Your task to perform on an android device: turn on javascript in the chrome app Image 0: 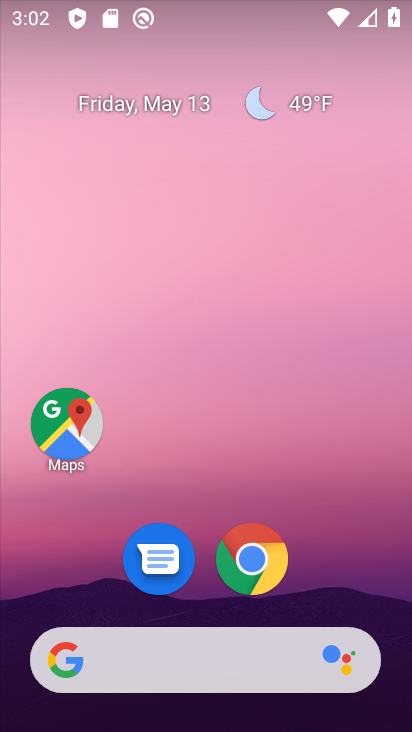
Step 0: click (256, 563)
Your task to perform on an android device: turn on javascript in the chrome app Image 1: 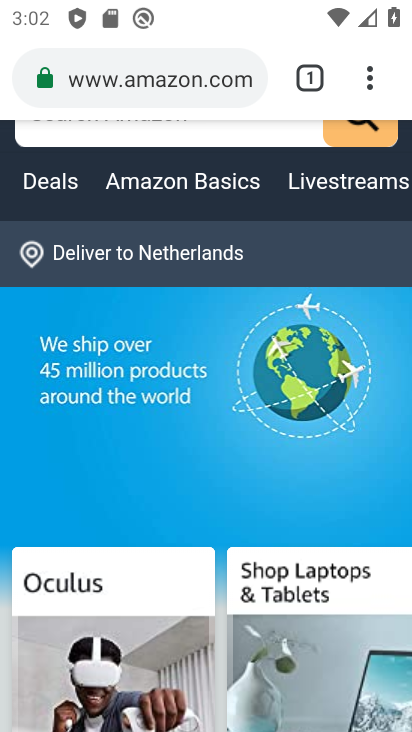
Step 1: click (369, 84)
Your task to perform on an android device: turn on javascript in the chrome app Image 2: 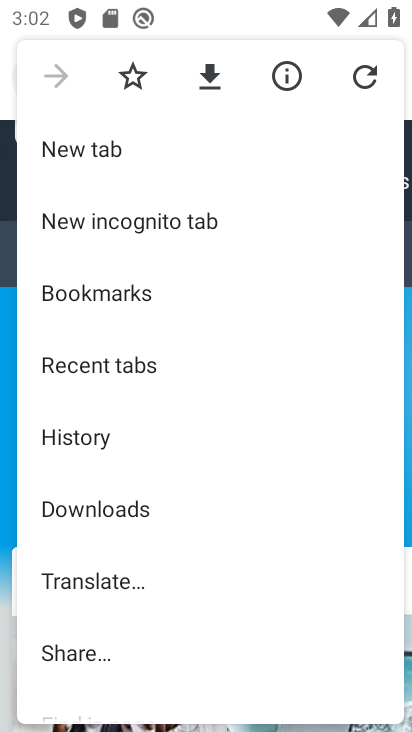
Step 2: drag from (211, 595) to (230, 210)
Your task to perform on an android device: turn on javascript in the chrome app Image 3: 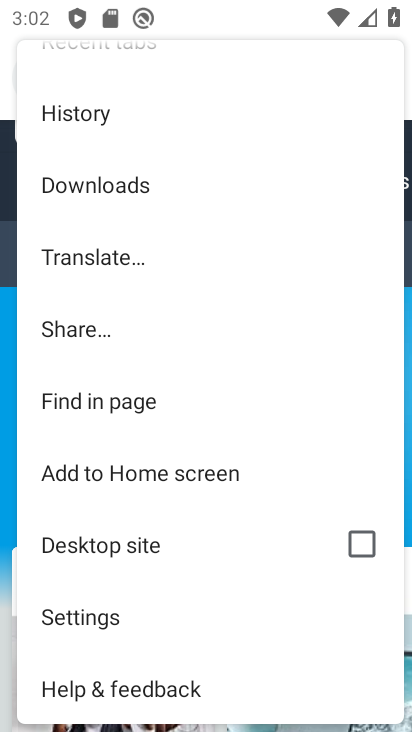
Step 3: drag from (283, 575) to (292, 211)
Your task to perform on an android device: turn on javascript in the chrome app Image 4: 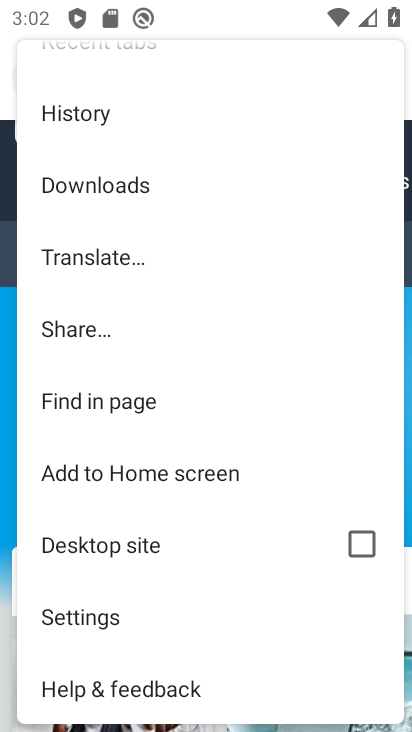
Step 4: click (76, 618)
Your task to perform on an android device: turn on javascript in the chrome app Image 5: 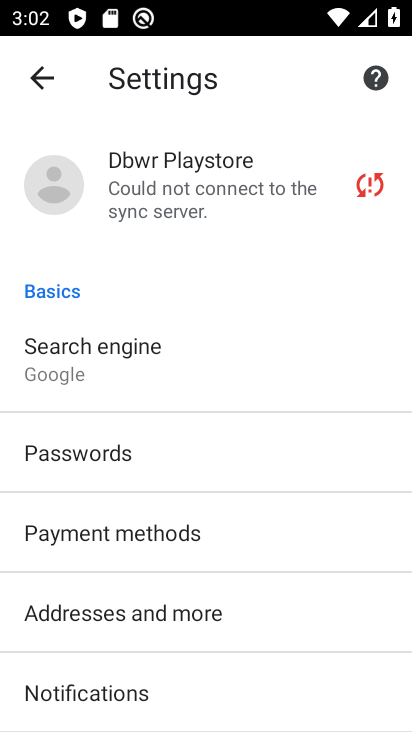
Step 5: drag from (242, 638) to (258, 252)
Your task to perform on an android device: turn on javascript in the chrome app Image 6: 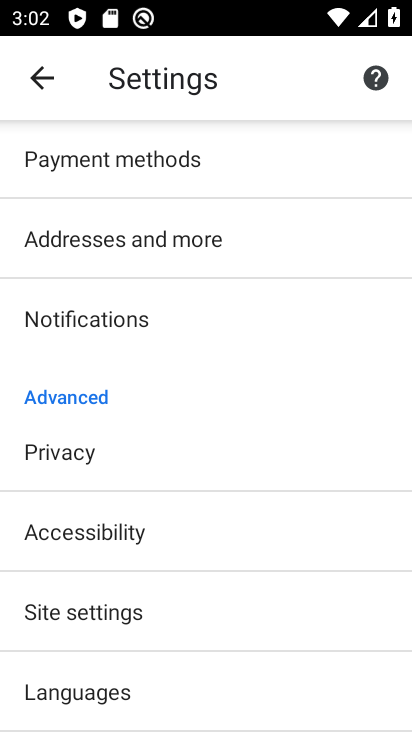
Step 6: click (126, 620)
Your task to perform on an android device: turn on javascript in the chrome app Image 7: 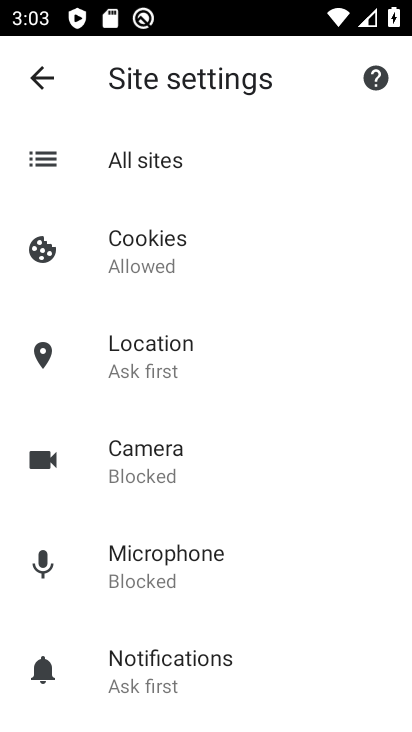
Step 7: drag from (292, 669) to (294, 173)
Your task to perform on an android device: turn on javascript in the chrome app Image 8: 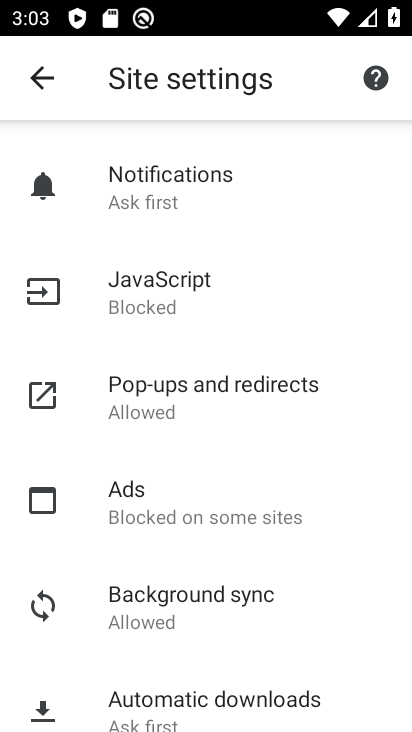
Step 8: click (159, 296)
Your task to perform on an android device: turn on javascript in the chrome app Image 9: 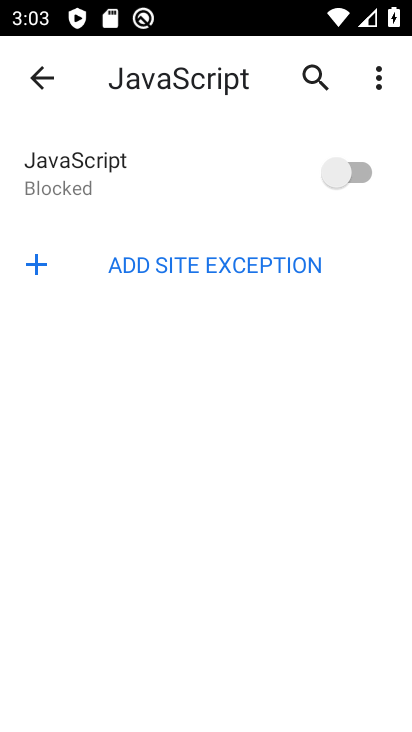
Step 9: click (359, 178)
Your task to perform on an android device: turn on javascript in the chrome app Image 10: 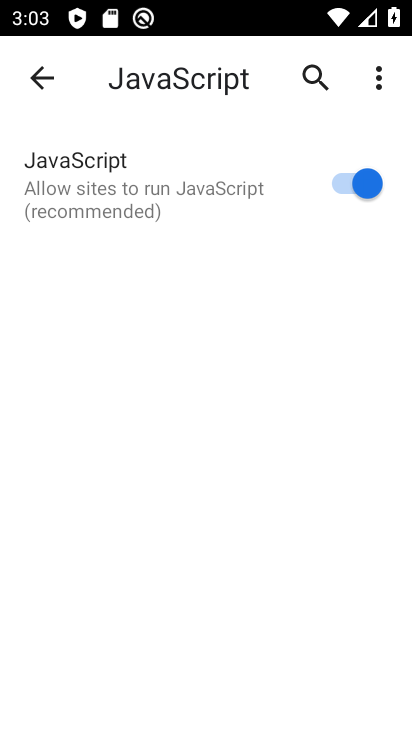
Step 10: task complete